Your task to perform on an android device: open app "Expedia: Hotels, Flights & Car" Image 0: 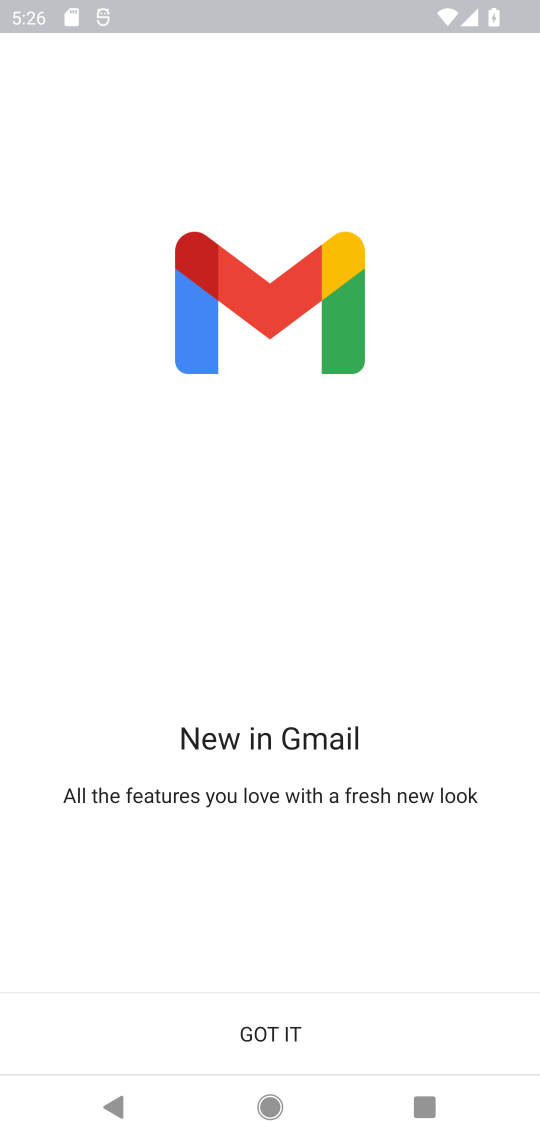
Step 0: press back button
Your task to perform on an android device: open app "Expedia: Hotels, Flights & Car" Image 1: 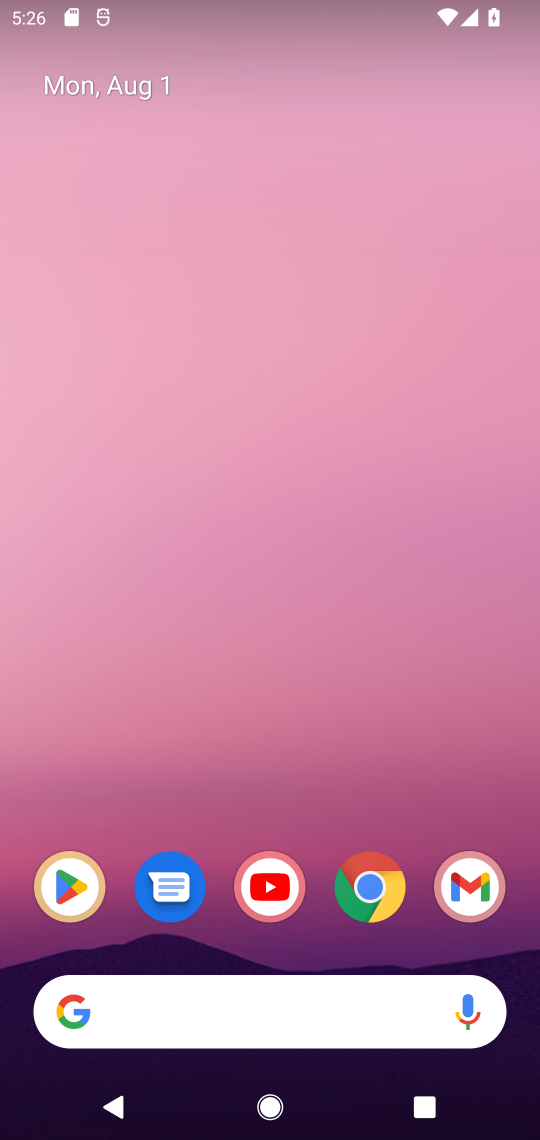
Step 1: click (83, 904)
Your task to perform on an android device: open app "Expedia: Hotels, Flights & Car" Image 2: 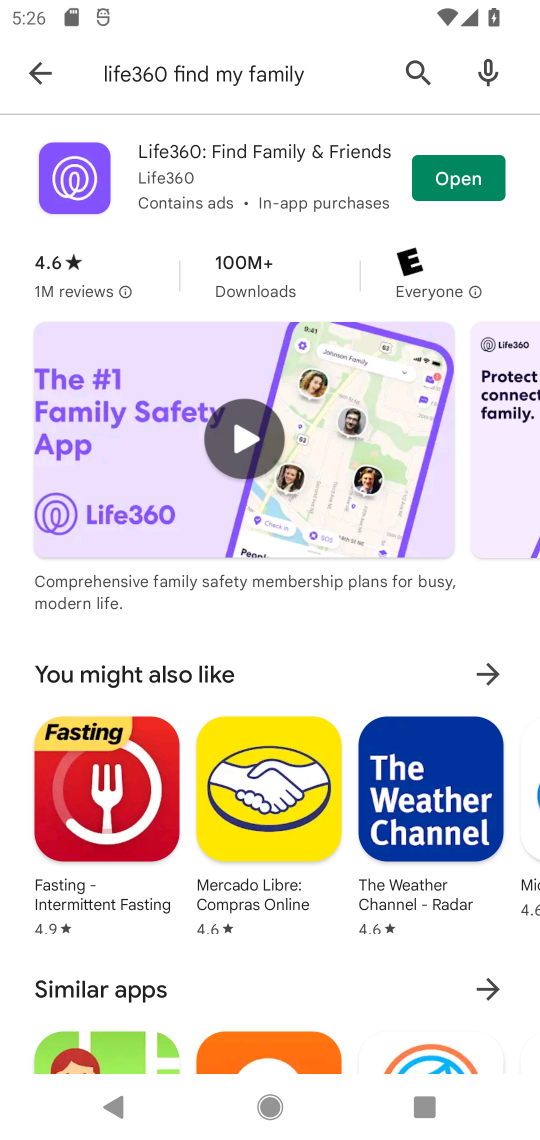
Step 2: click (39, 64)
Your task to perform on an android device: open app "Expedia: Hotels, Flights & Car" Image 3: 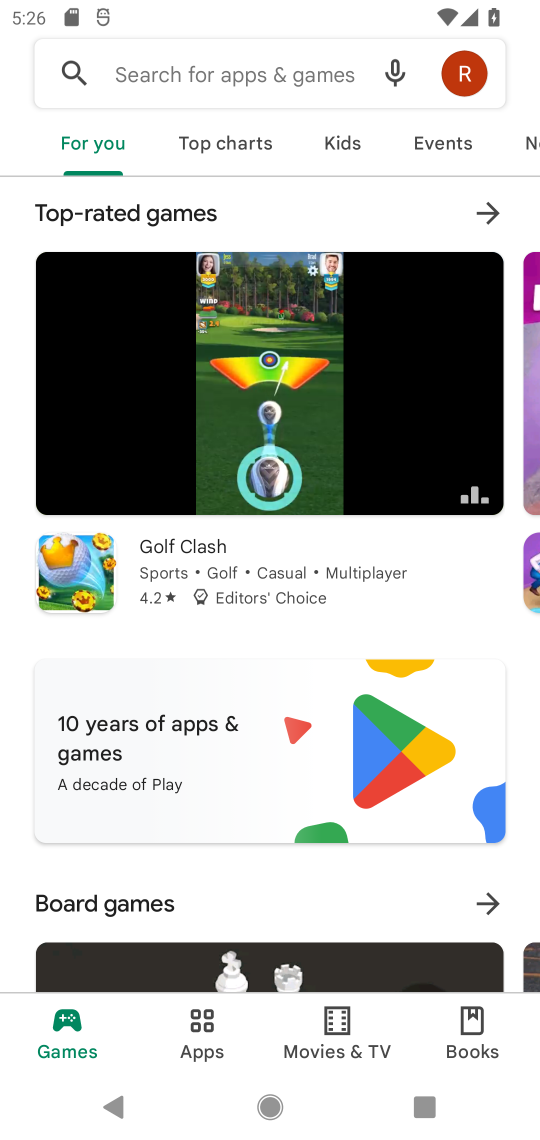
Step 3: click (149, 72)
Your task to perform on an android device: open app "Expedia: Hotels, Flights & Car" Image 4: 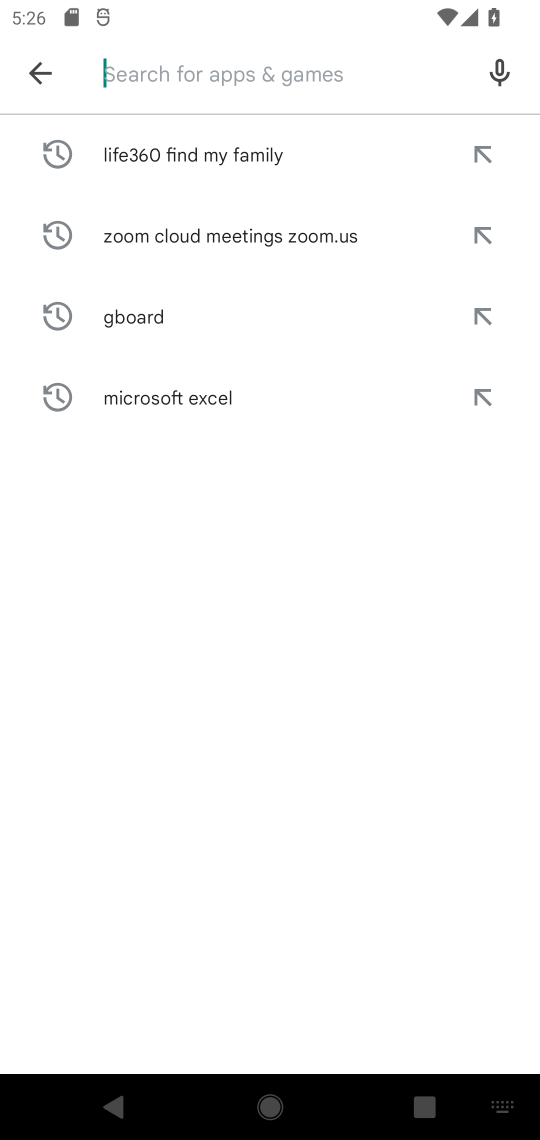
Step 4: type "Expedia: Hotels, Flights & Car"
Your task to perform on an android device: open app "Expedia: Hotels, Flights & Car" Image 5: 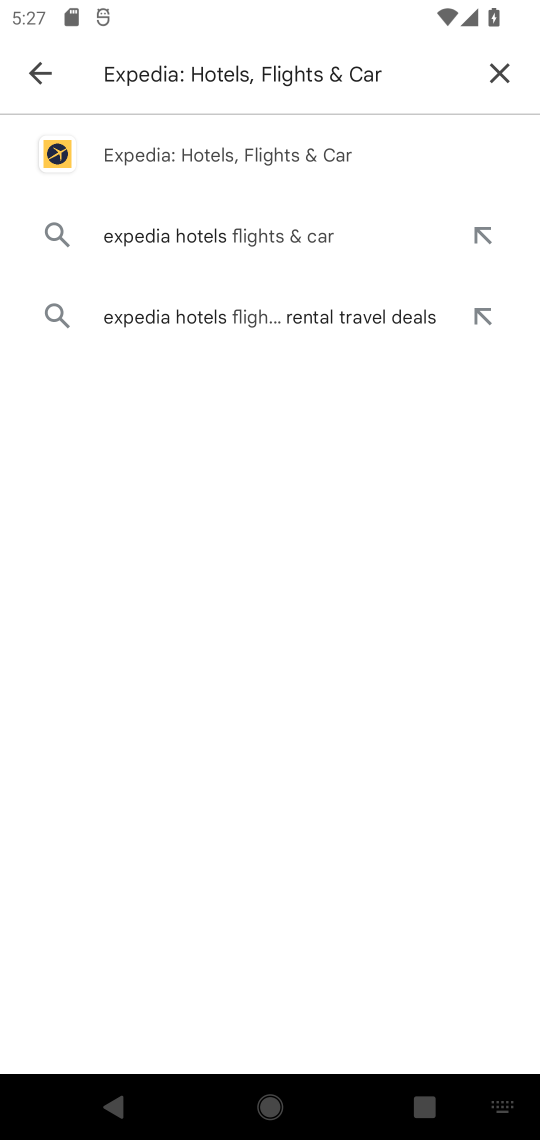
Step 5: click (166, 139)
Your task to perform on an android device: open app "Expedia: Hotels, Flights & Car" Image 6: 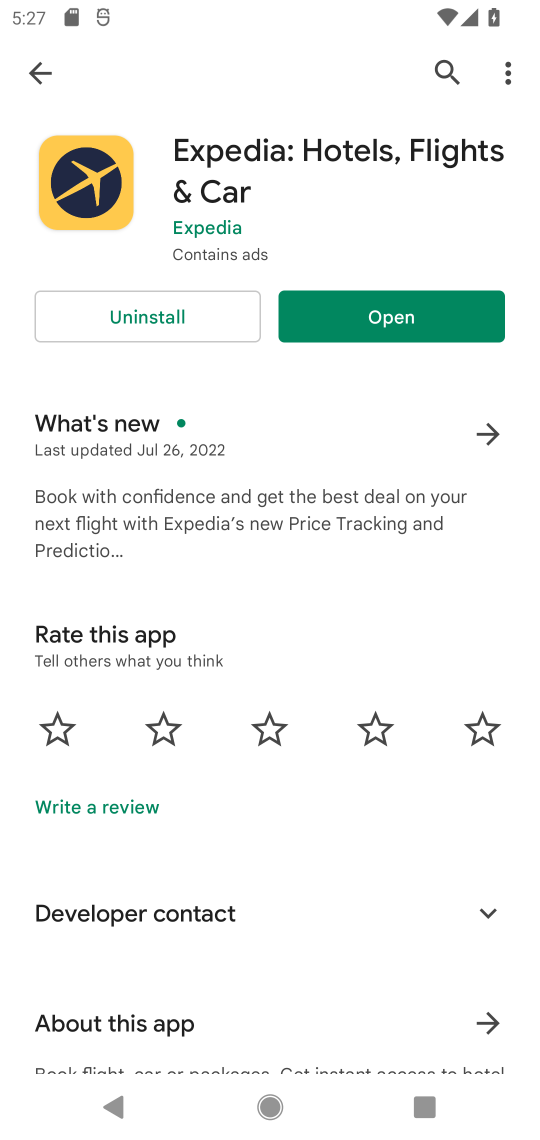
Step 6: click (345, 295)
Your task to perform on an android device: open app "Expedia: Hotels, Flights & Car" Image 7: 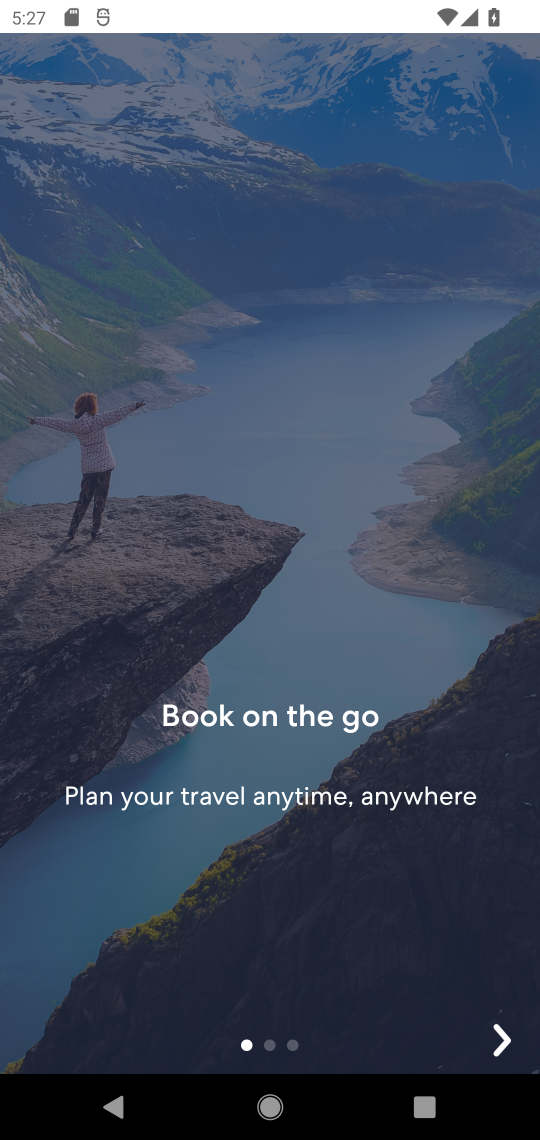
Step 7: click (487, 1019)
Your task to perform on an android device: open app "Expedia: Hotels, Flights & Car" Image 8: 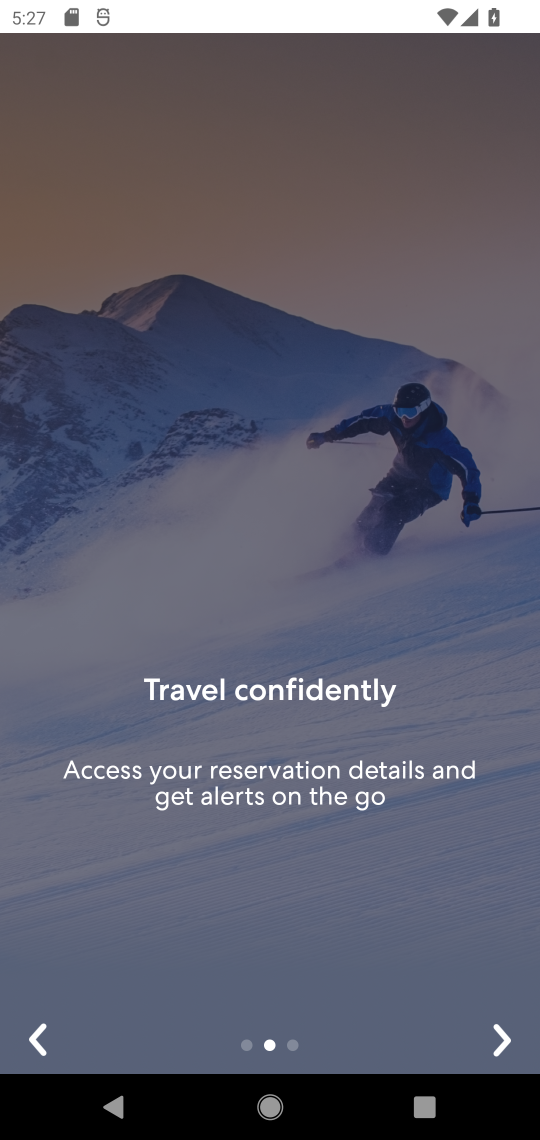
Step 8: click (487, 1019)
Your task to perform on an android device: open app "Expedia: Hotels, Flights & Car" Image 9: 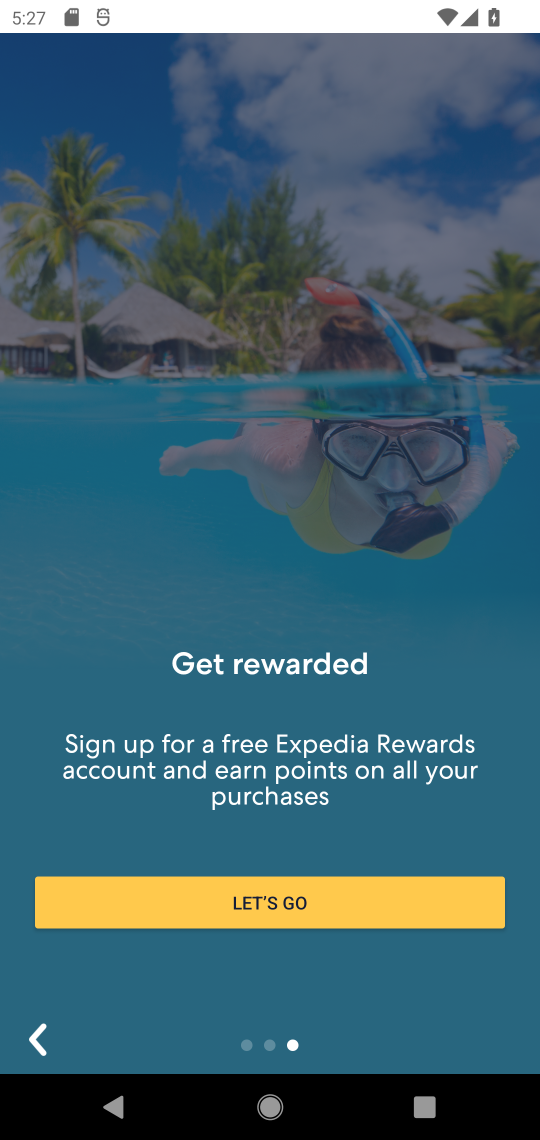
Step 9: click (296, 888)
Your task to perform on an android device: open app "Expedia: Hotels, Flights & Car" Image 10: 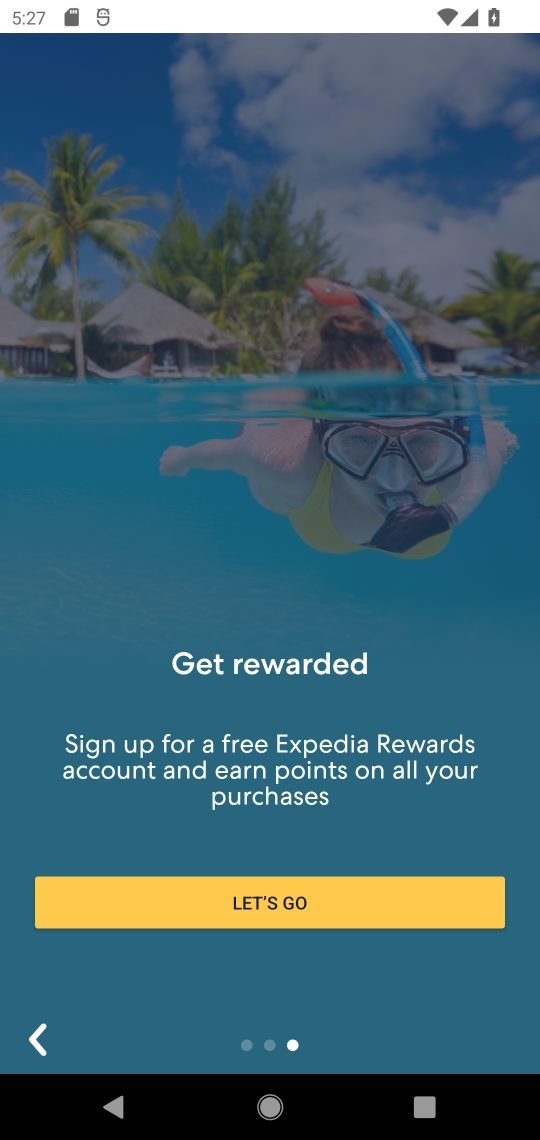
Step 10: task complete